Your task to perform on an android device: Set the phone to "Do not disturb". Image 0: 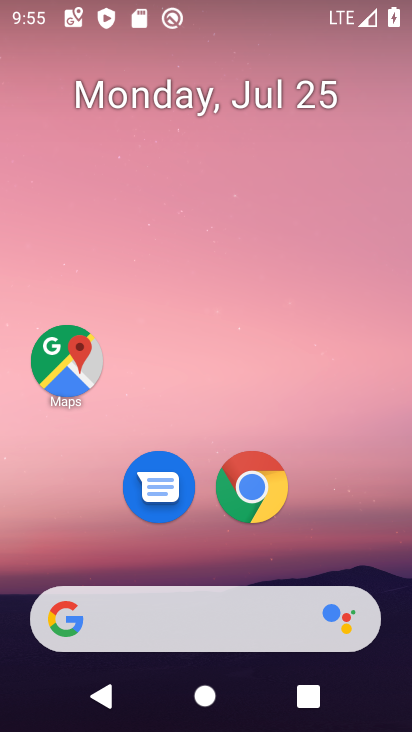
Step 0: drag from (223, 5) to (228, 504)
Your task to perform on an android device: Set the phone to "Do not disturb". Image 1: 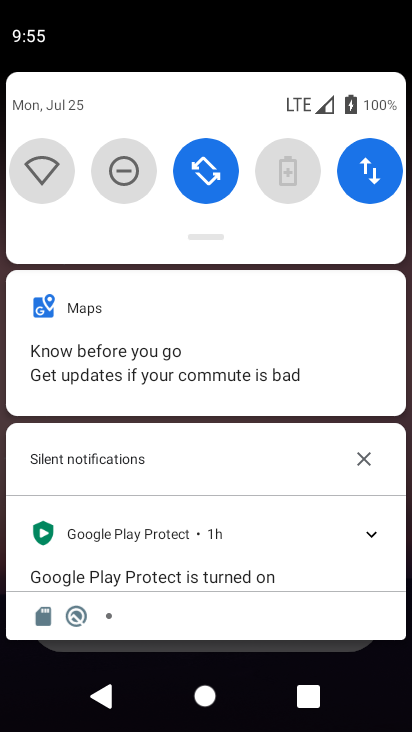
Step 1: click (120, 161)
Your task to perform on an android device: Set the phone to "Do not disturb". Image 2: 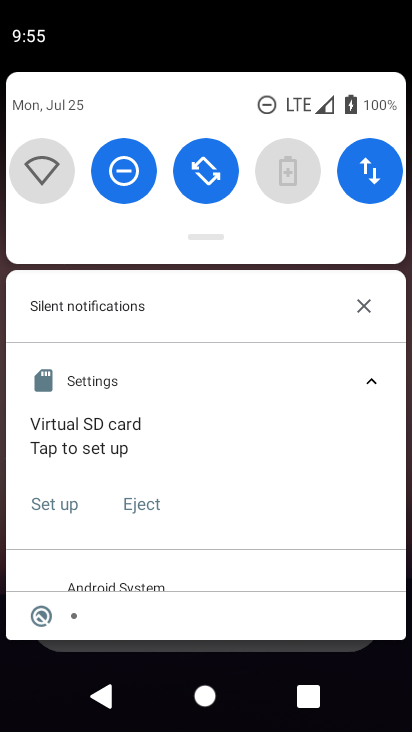
Step 2: task complete